Your task to perform on an android device: delete the emails in spam in the gmail app Image 0: 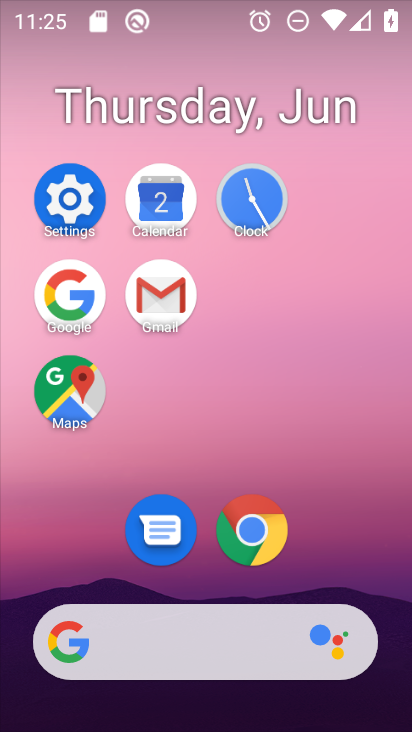
Step 0: click (165, 274)
Your task to perform on an android device: delete the emails in spam in the gmail app Image 1: 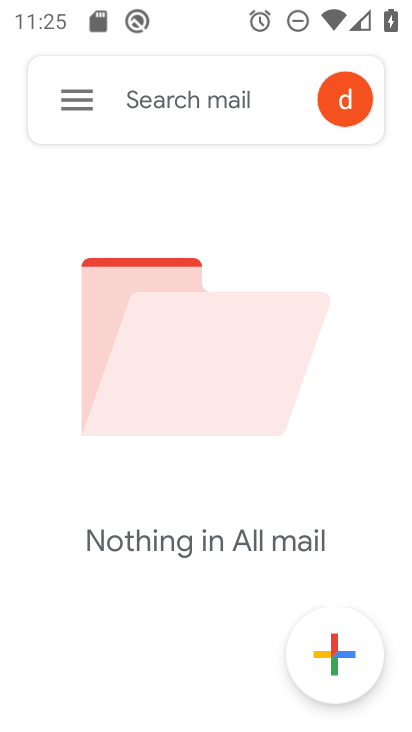
Step 1: click (86, 109)
Your task to perform on an android device: delete the emails in spam in the gmail app Image 2: 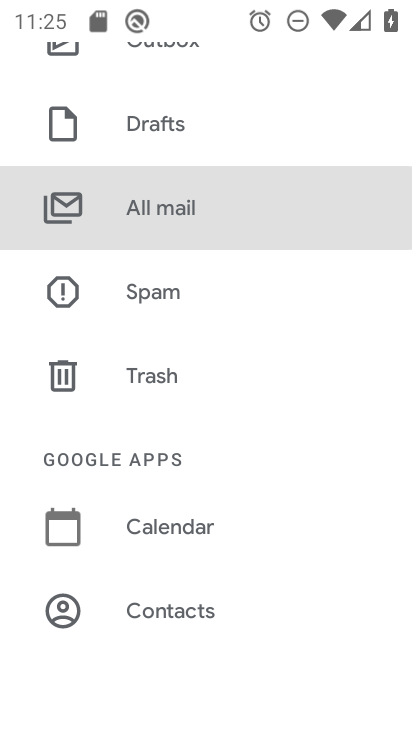
Step 2: click (195, 278)
Your task to perform on an android device: delete the emails in spam in the gmail app Image 3: 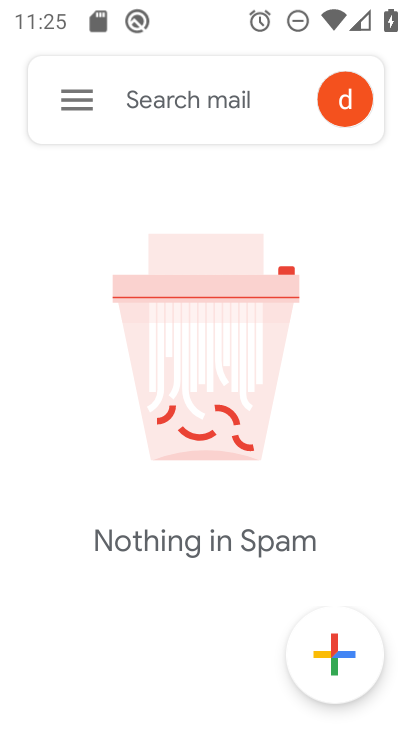
Step 3: task complete